Your task to perform on an android device: Set an alarm for 1pm Image 0: 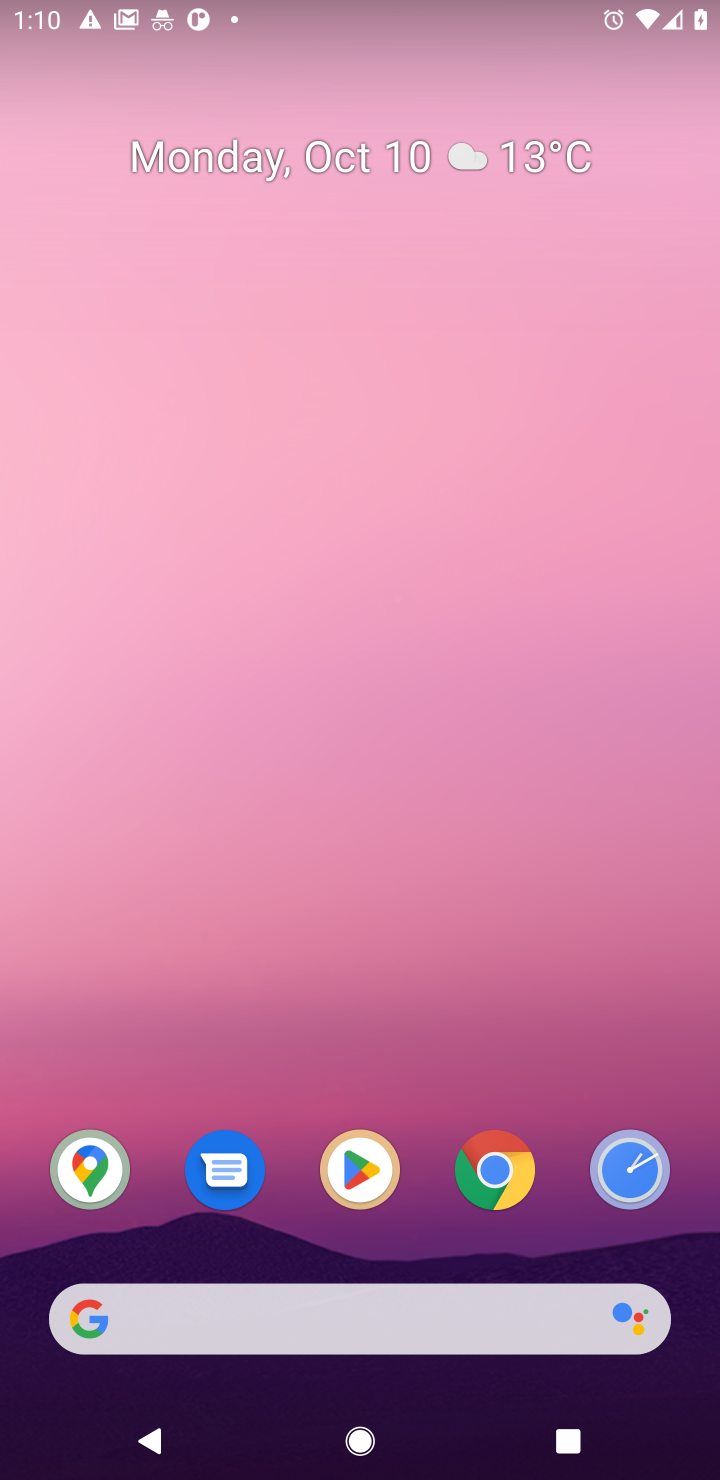
Step 0: drag from (460, 773) to (453, 120)
Your task to perform on an android device: Set an alarm for 1pm Image 1: 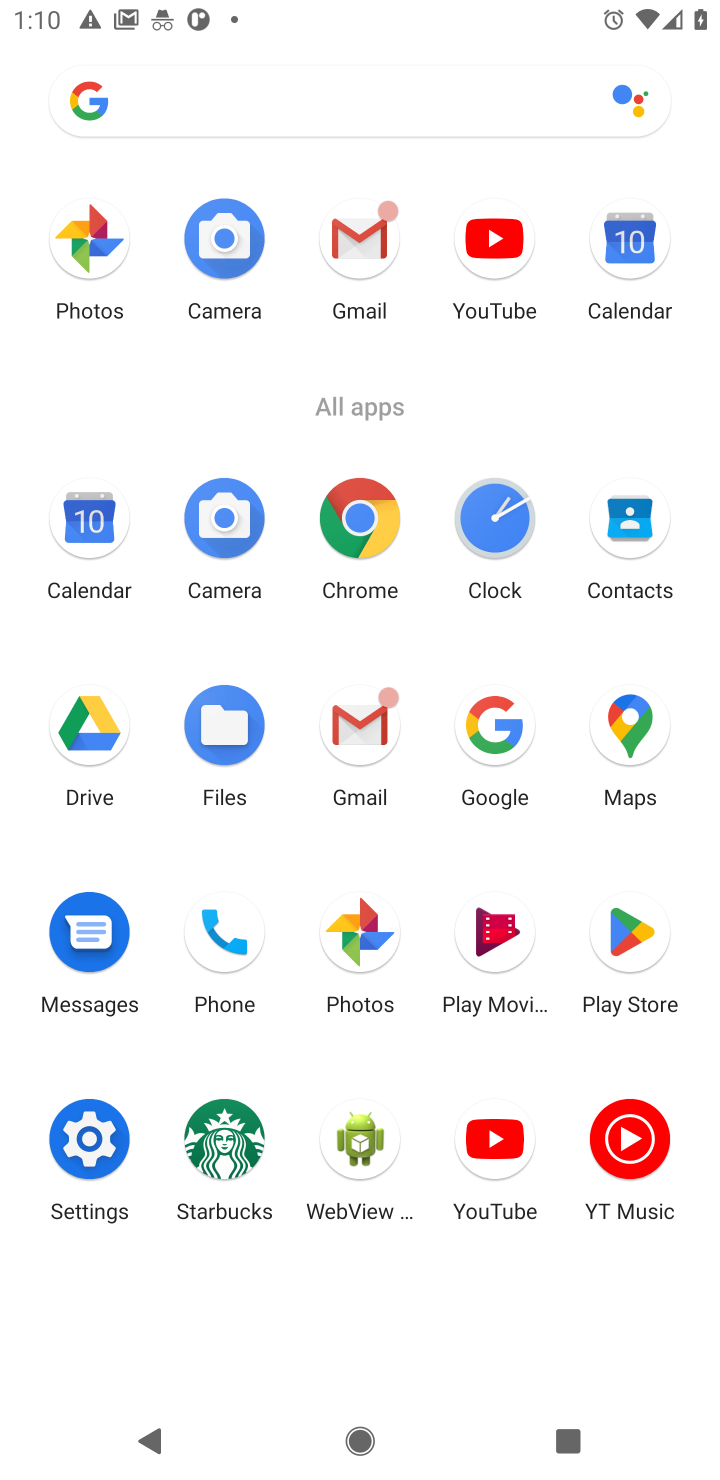
Step 1: click (481, 573)
Your task to perform on an android device: Set an alarm for 1pm Image 2: 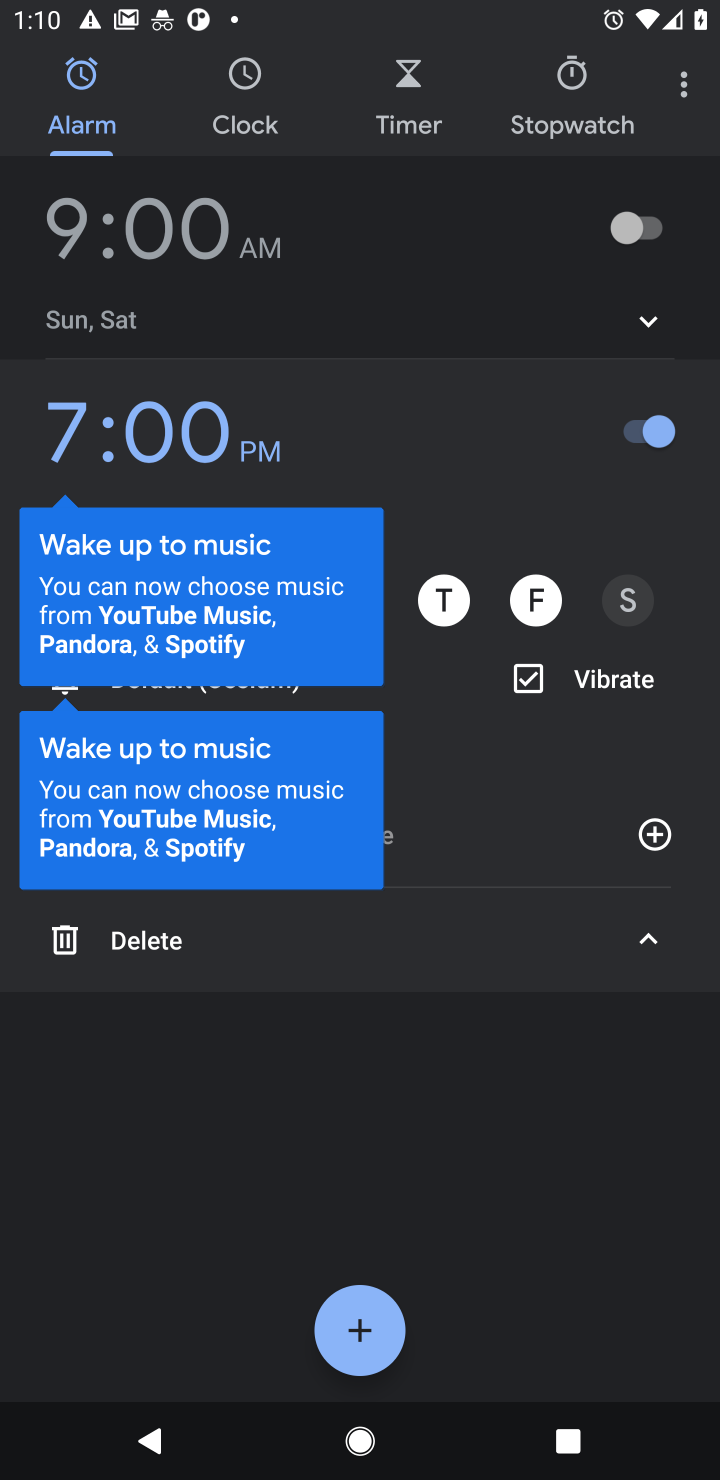
Step 2: click (360, 1337)
Your task to perform on an android device: Set an alarm for 1pm Image 3: 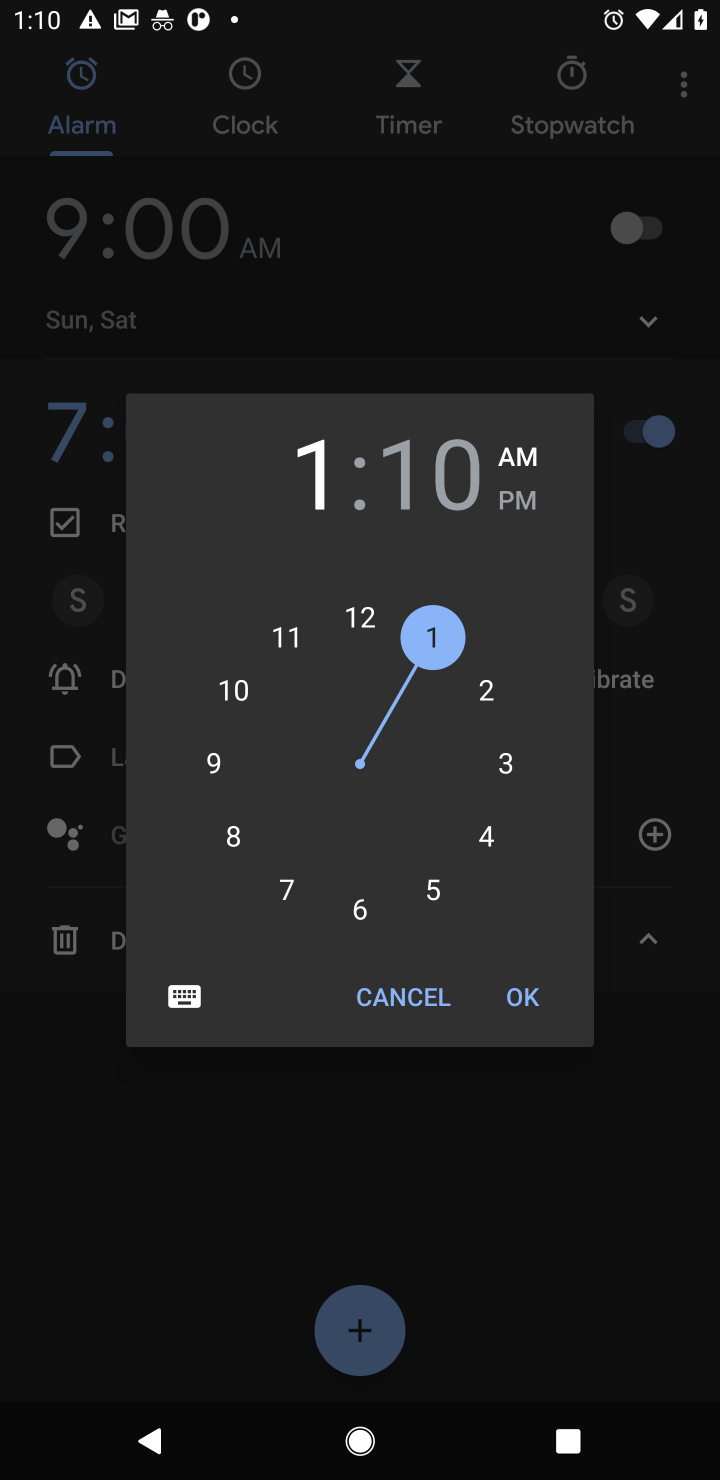
Step 3: click (435, 640)
Your task to perform on an android device: Set an alarm for 1pm Image 4: 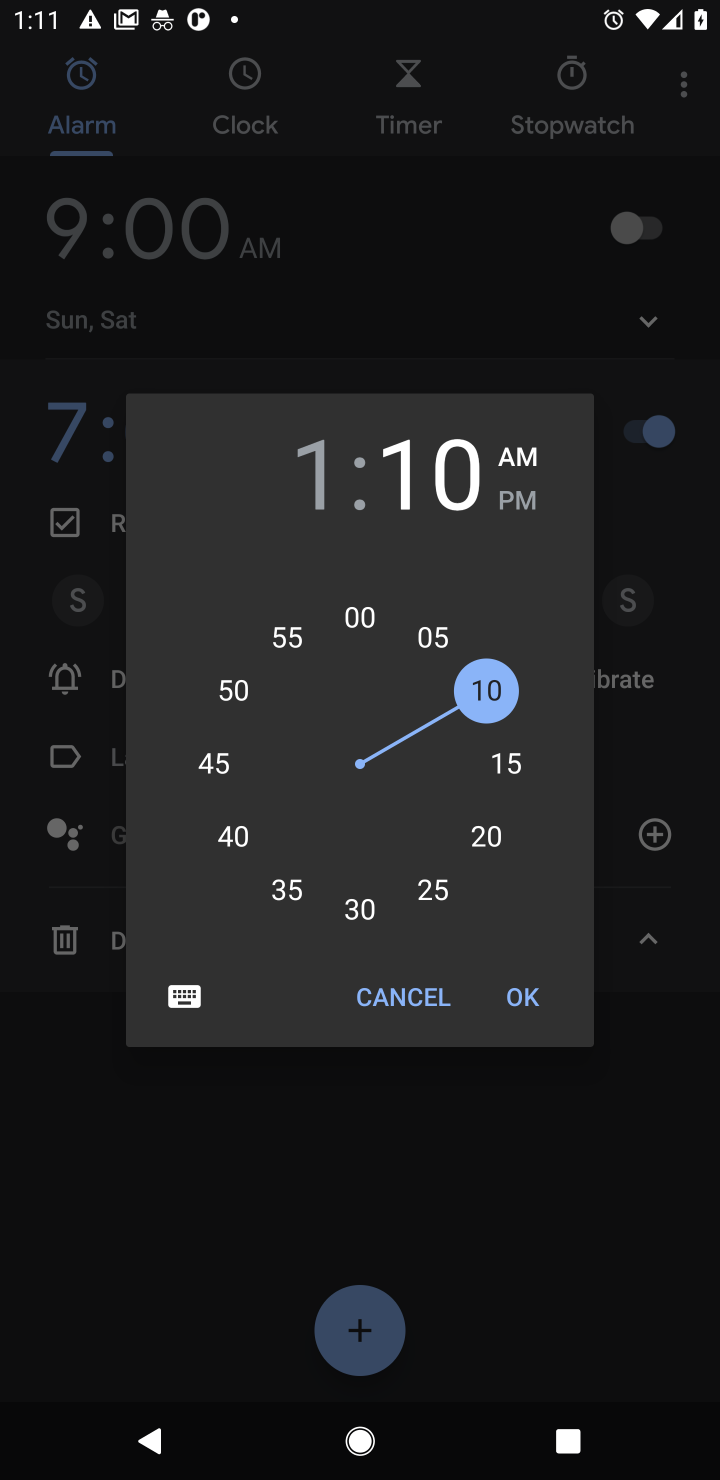
Step 4: click (366, 628)
Your task to perform on an android device: Set an alarm for 1pm Image 5: 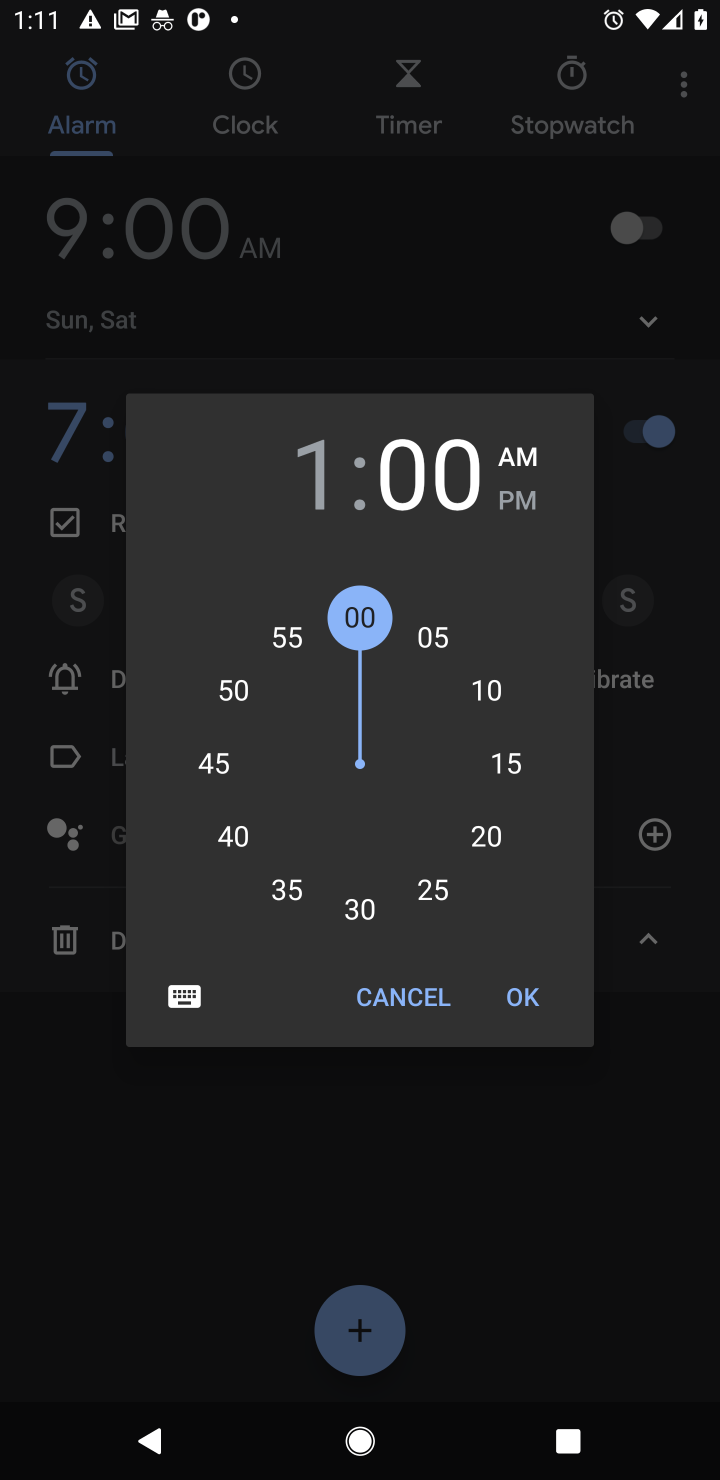
Step 5: click (516, 512)
Your task to perform on an android device: Set an alarm for 1pm Image 6: 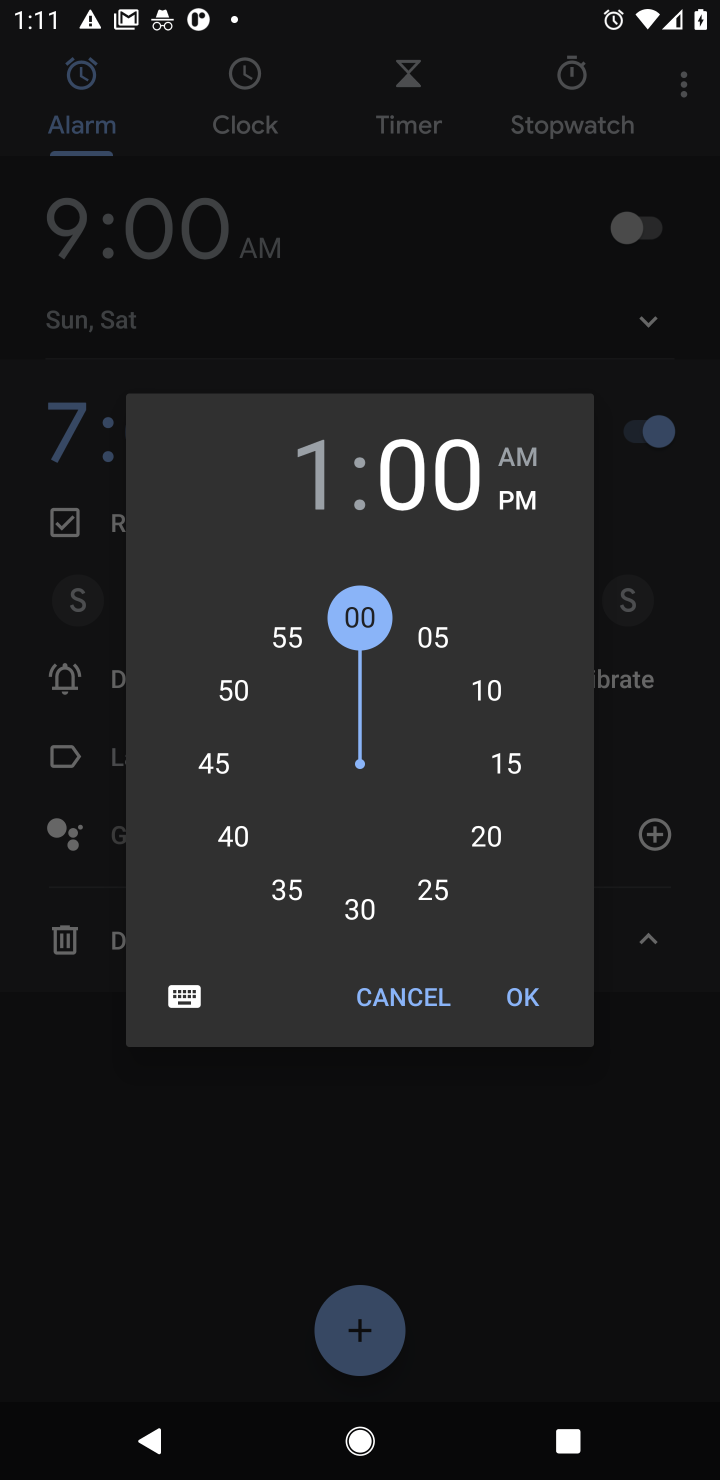
Step 6: task complete